Your task to perform on an android device: Go to Yahoo.com Image 0: 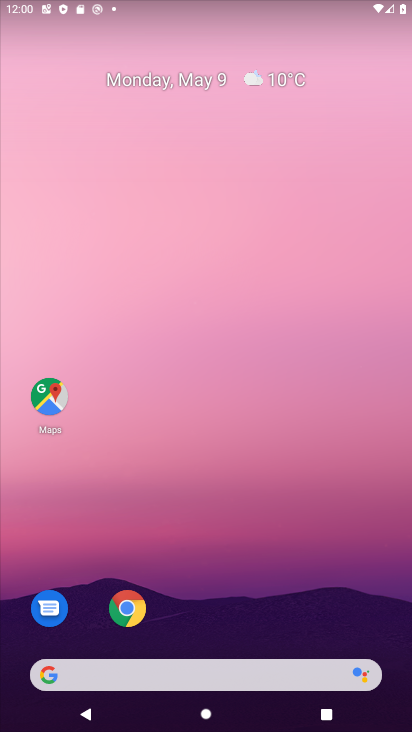
Step 0: click (120, 618)
Your task to perform on an android device: Go to Yahoo.com Image 1: 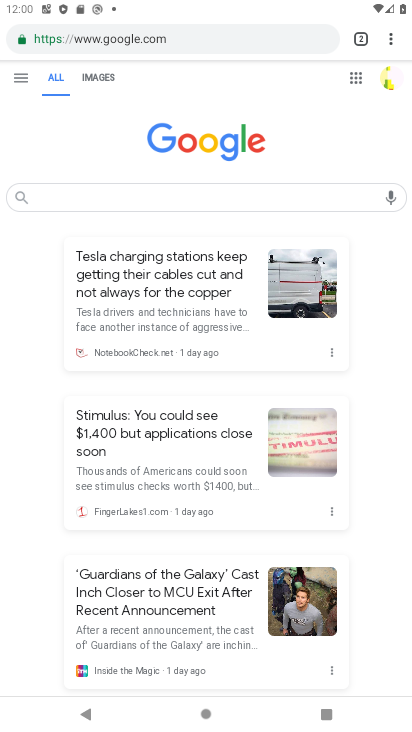
Step 1: click (196, 44)
Your task to perform on an android device: Go to Yahoo.com Image 2: 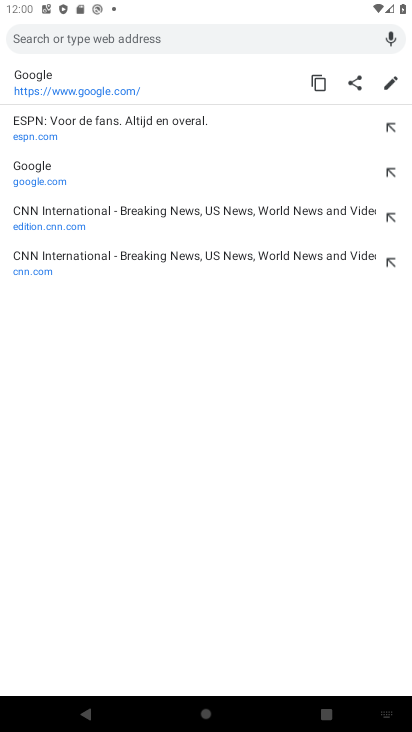
Step 2: type "yahoo.com"
Your task to perform on an android device: Go to Yahoo.com Image 3: 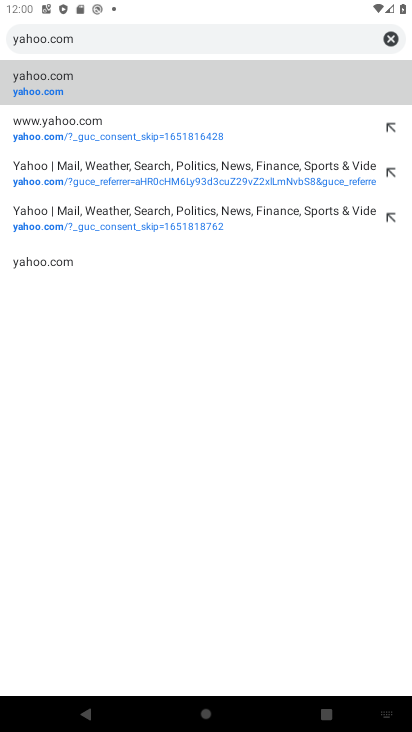
Step 3: click (61, 103)
Your task to perform on an android device: Go to Yahoo.com Image 4: 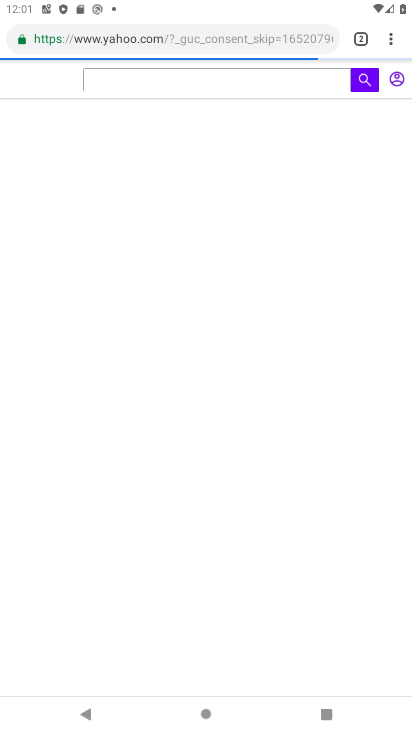
Step 4: task complete